Your task to perform on an android device: turn vacation reply on in the gmail app Image 0: 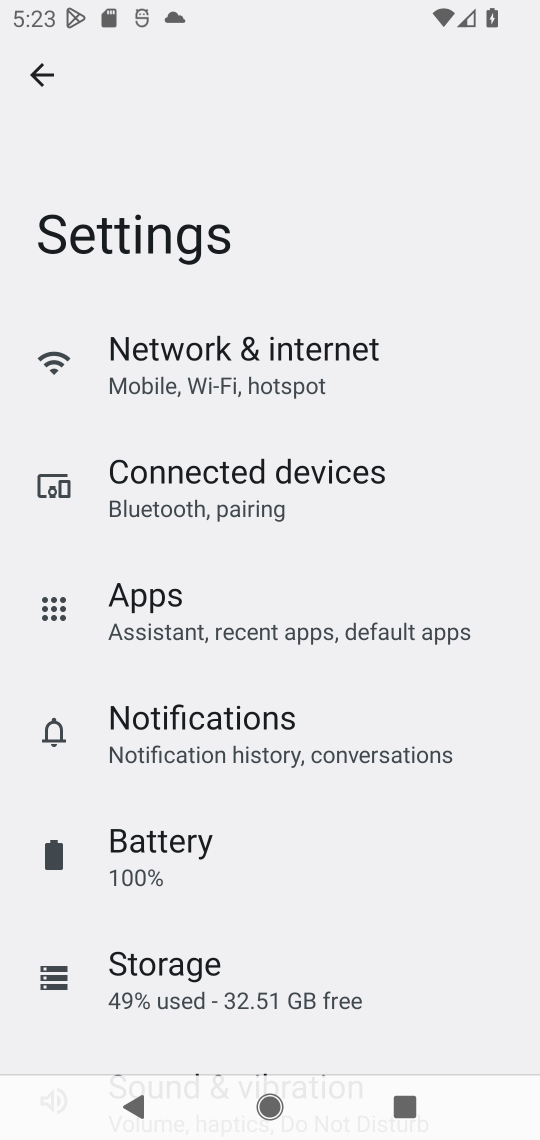
Step 0: press home button
Your task to perform on an android device: turn vacation reply on in the gmail app Image 1: 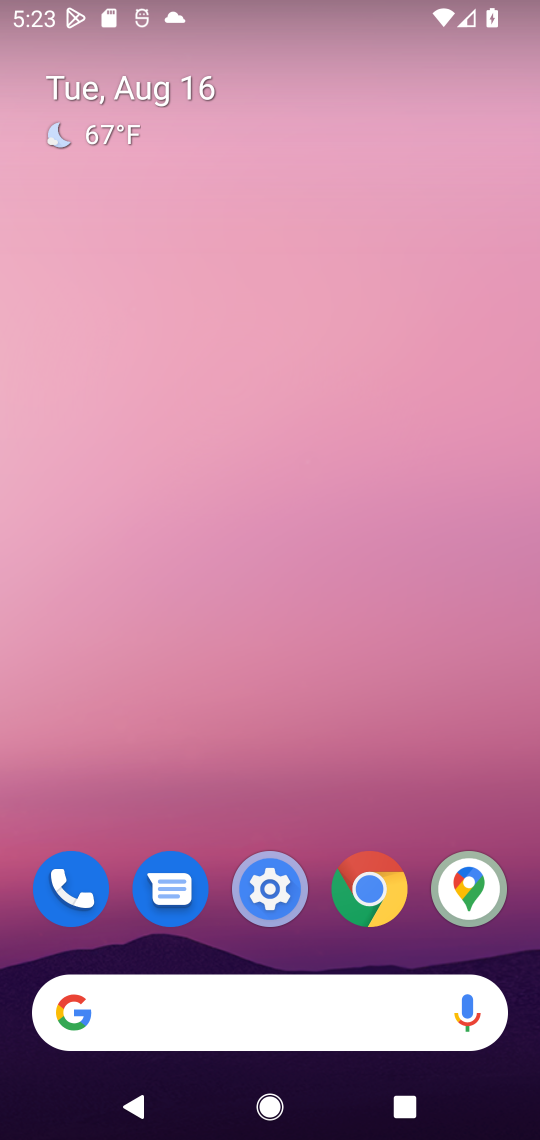
Step 1: drag from (205, 789) to (244, 262)
Your task to perform on an android device: turn vacation reply on in the gmail app Image 2: 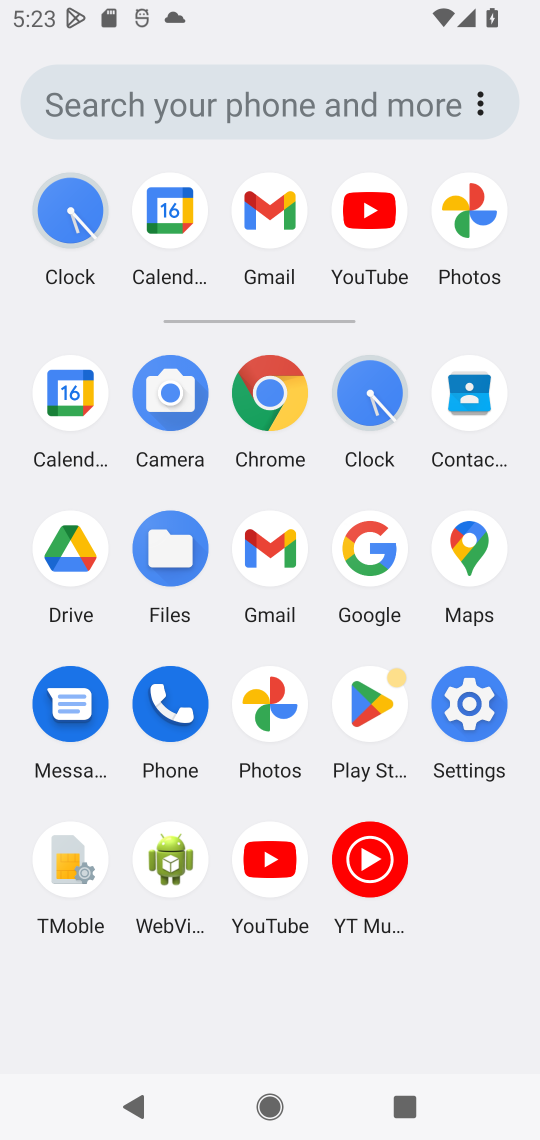
Step 2: click (272, 542)
Your task to perform on an android device: turn vacation reply on in the gmail app Image 3: 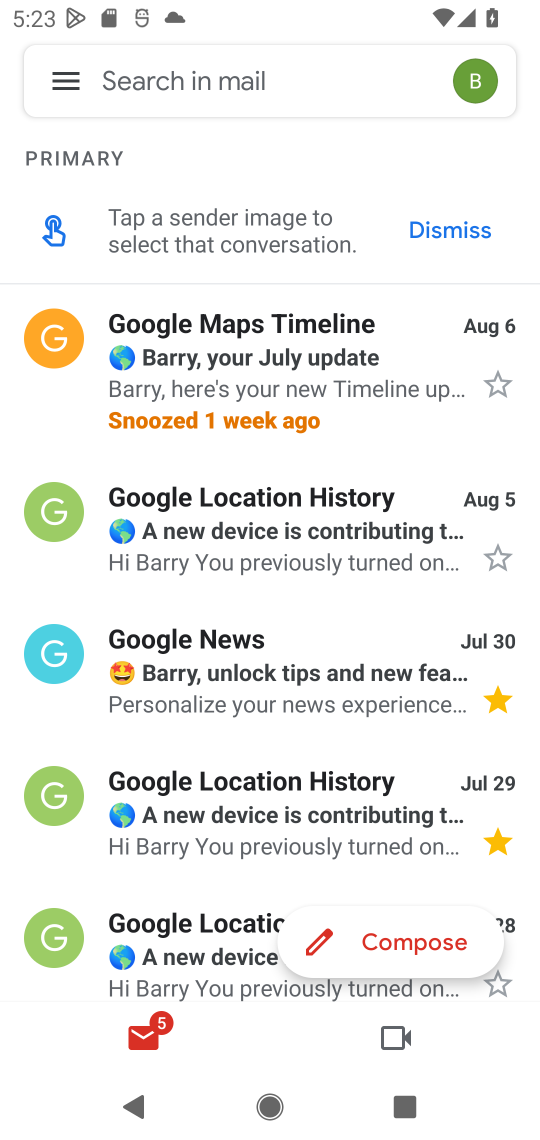
Step 3: task complete